Your task to perform on an android device: uninstall "AliExpress" Image 0: 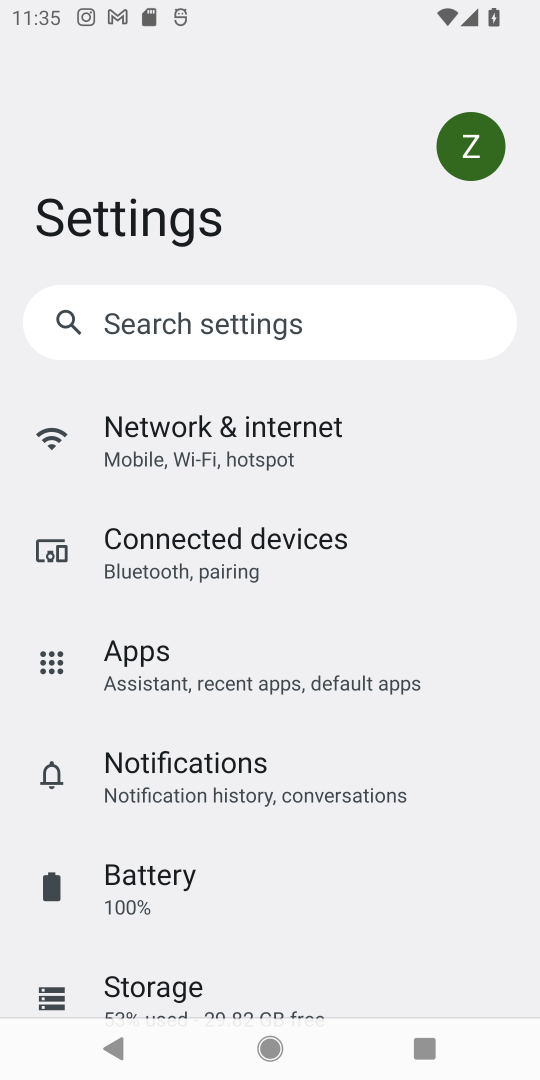
Step 0: press home button
Your task to perform on an android device: uninstall "AliExpress" Image 1: 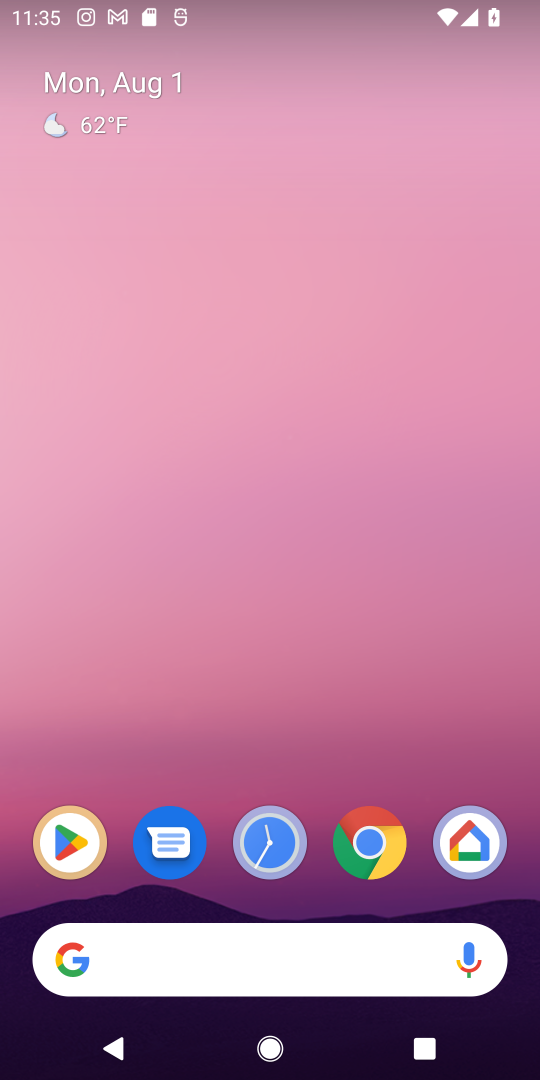
Step 1: click (78, 816)
Your task to perform on an android device: uninstall "AliExpress" Image 2: 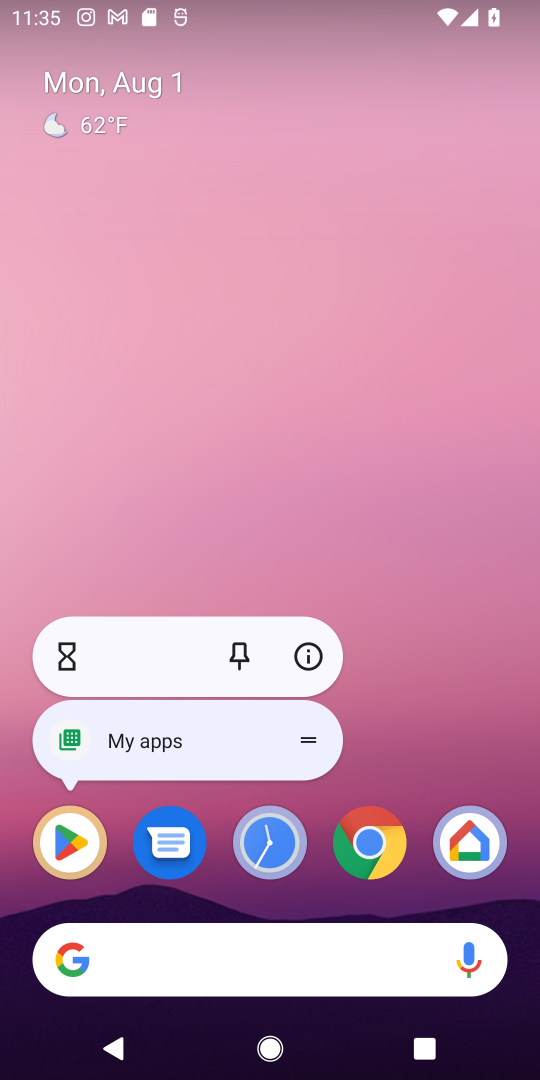
Step 2: click (78, 844)
Your task to perform on an android device: uninstall "AliExpress" Image 3: 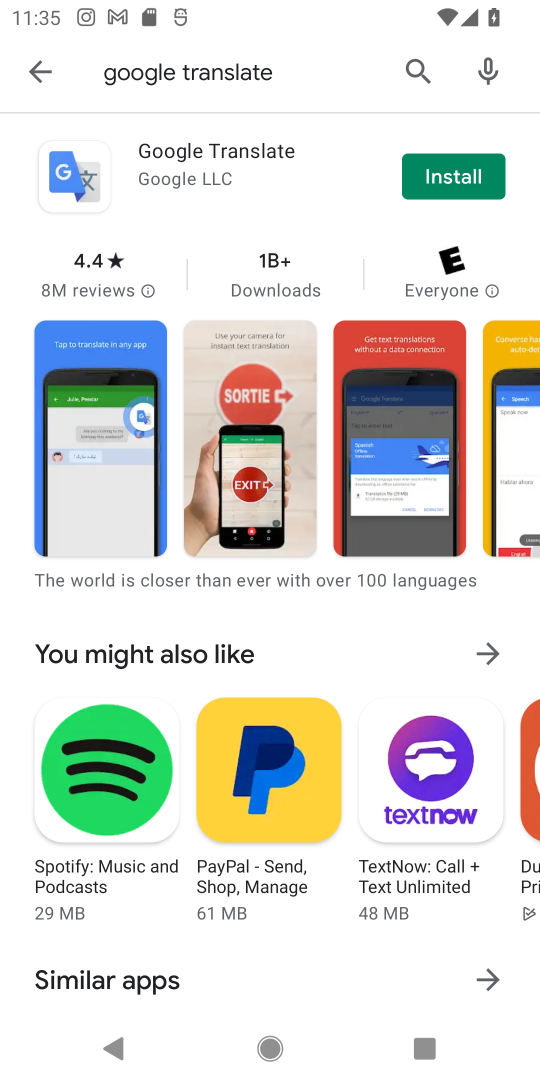
Step 3: click (428, 66)
Your task to perform on an android device: uninstall "AliExpress" Image 4: 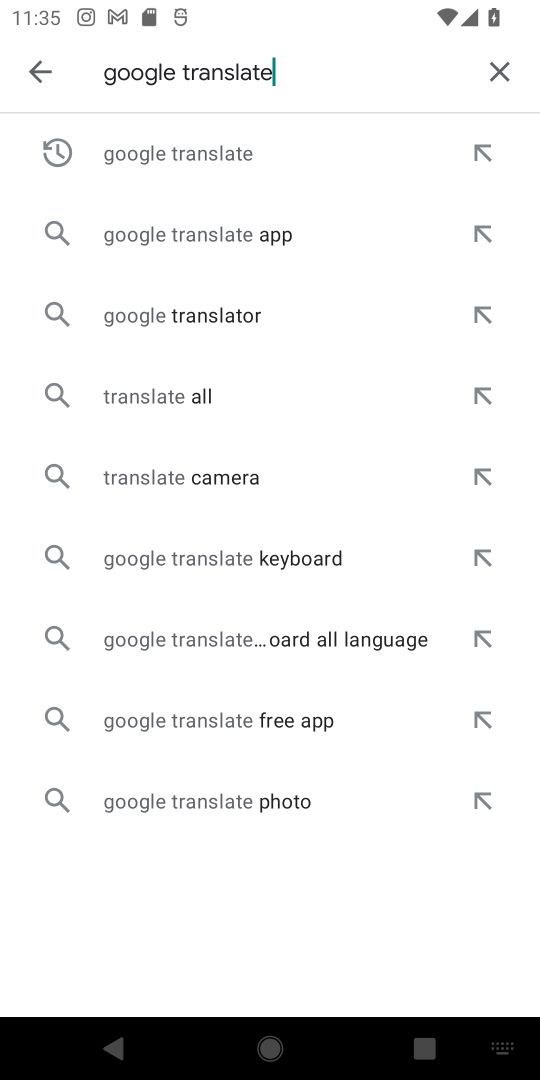
Step 4: click (498, 55)
Your task to perform on an android device: uninstall "AliExpress" Image 5: 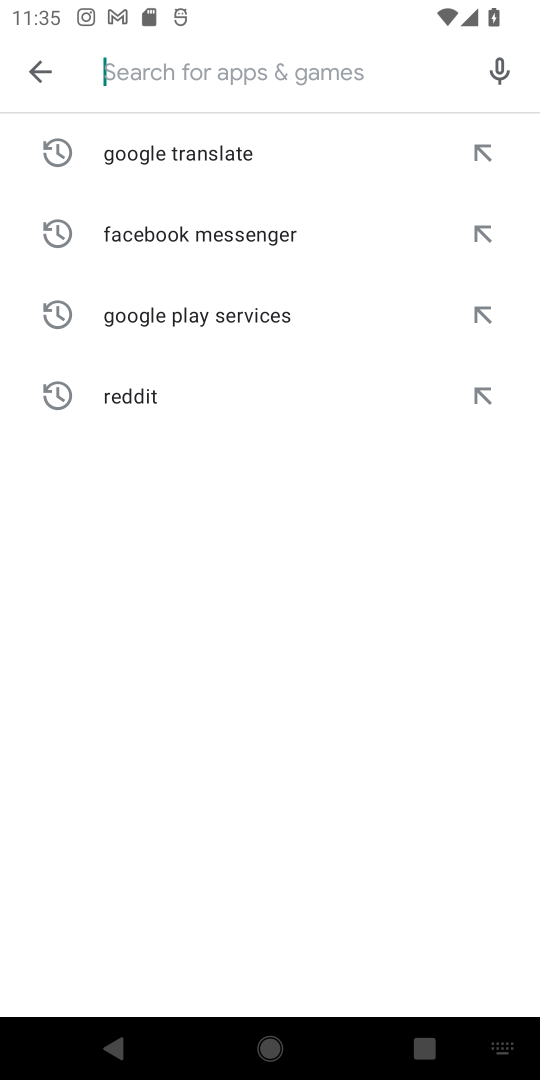
Step 5: click (164, 62)
Your task to perform on an android device: uninstall "AliExpress" Image 6: 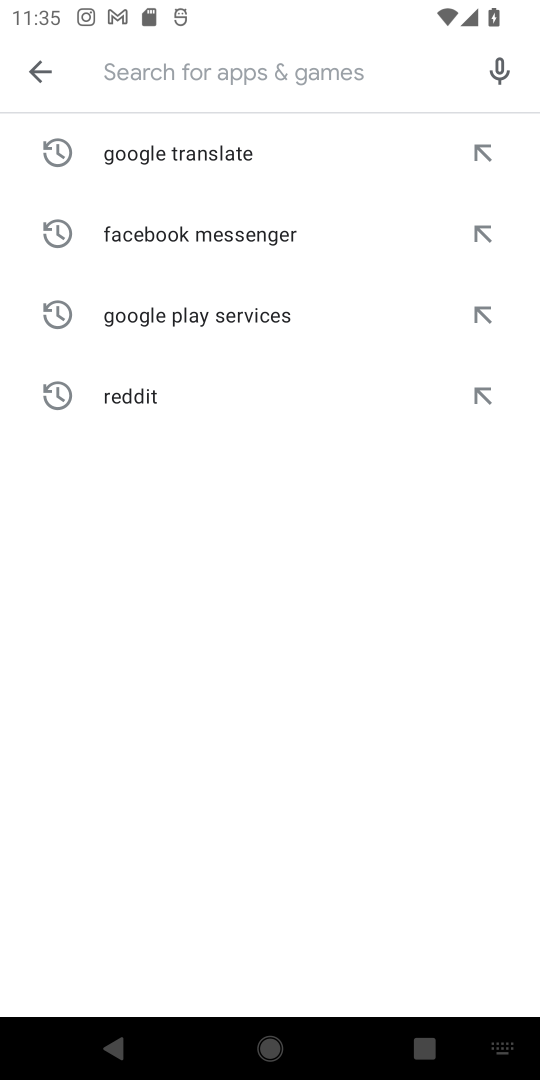
Step 6: click (195, 67)
Your task to perform on an android device: uninstall "AliExpress" Image 7: 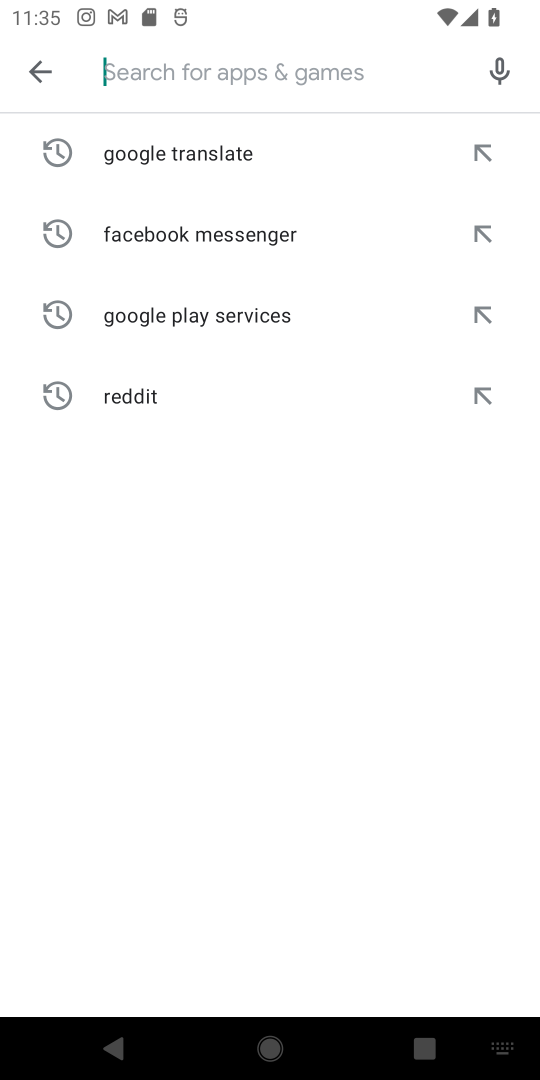
Step 7: type "AliExpress"
Your task to perform on an android device: uninstall "AliExpress" Image 8: 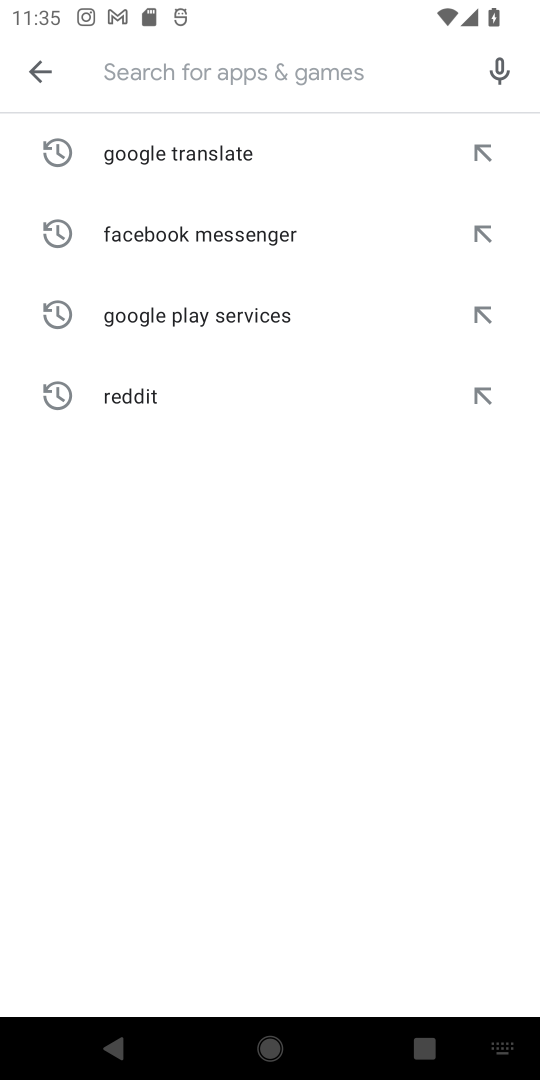
Step 8: click (329, 644)
Your task to perform on an android device: uninstall "AliExpress" Image 9: 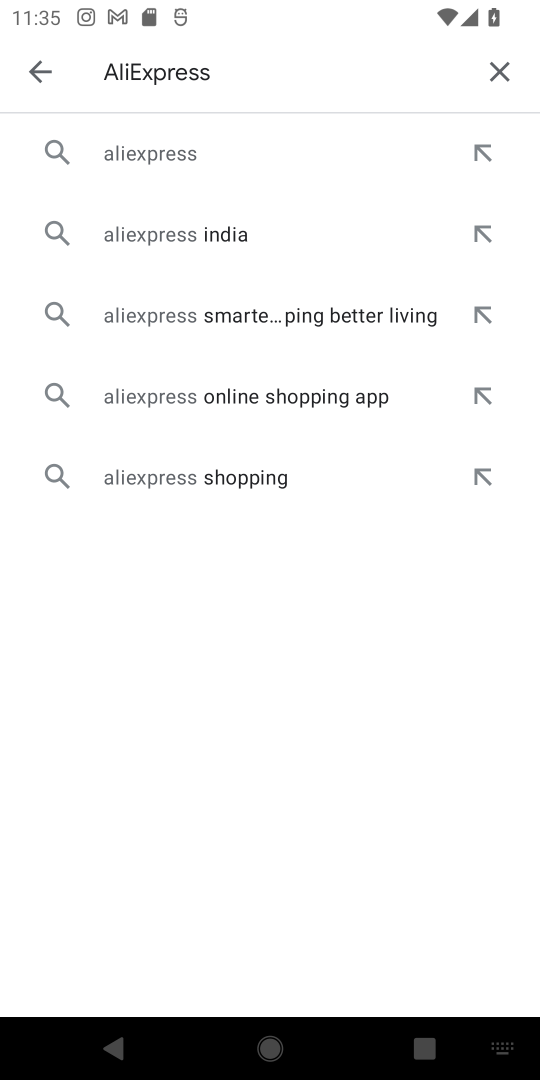
Step 9: click (145, 154)
Your task to perform on an android device: uninstall "AliExpress" Image 10: 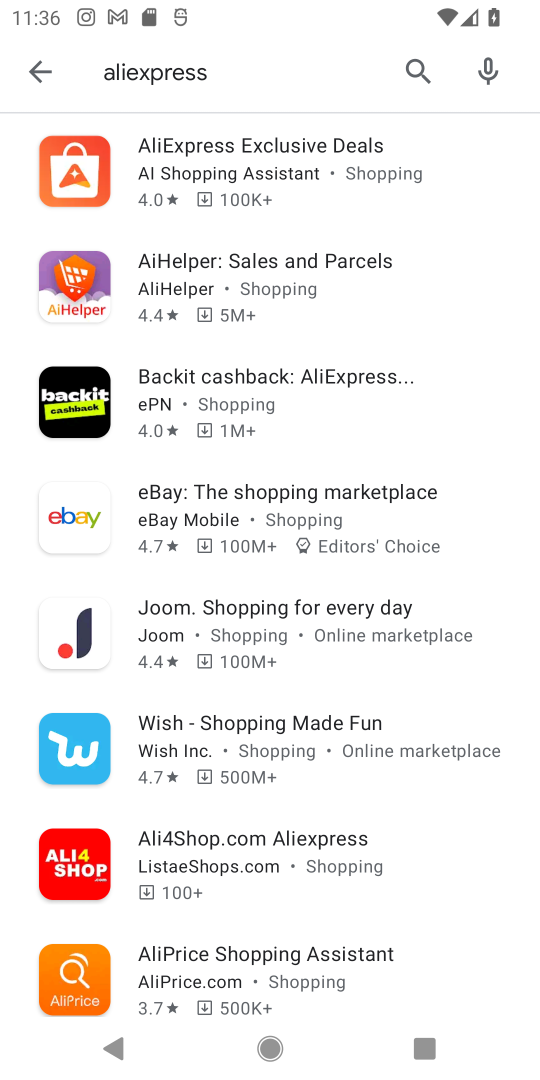
Step 10: click (246, 158)
Your task to perform on an android device: uninstall "AliExpress" Image 11: 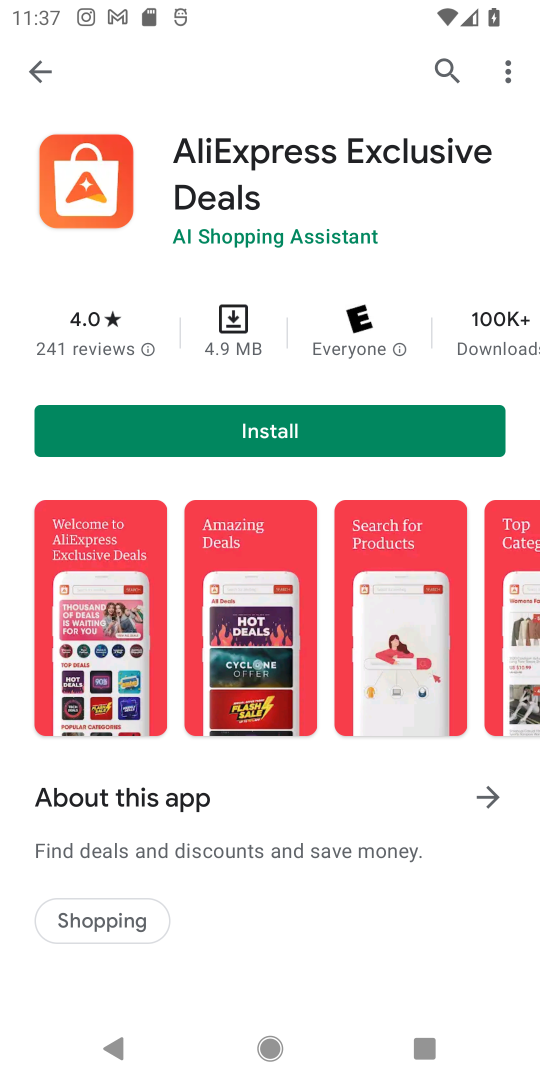
Step 11: task complete